Your task to perform on an android device: toggle javascript in the chrome app Image 0: 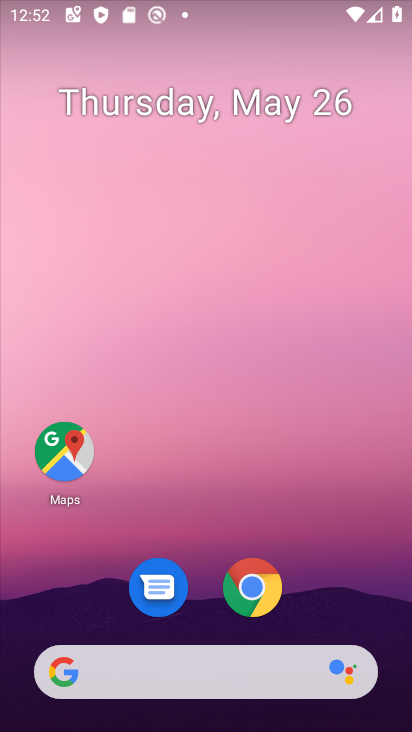
Step 0: drag from (392, 626) to (362, 107)
Your task to perform on an android device: toggle javascript in the chrome app Image 1: 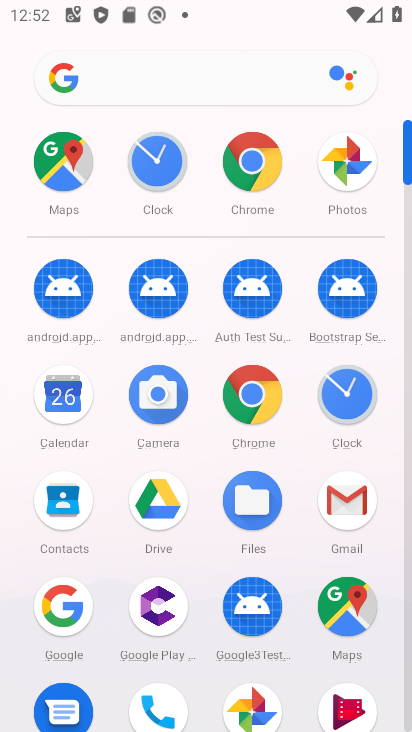
Step 1: click (257, 405)
Your task to perform on an android device: toggle javascript in the chrome app Image 2: 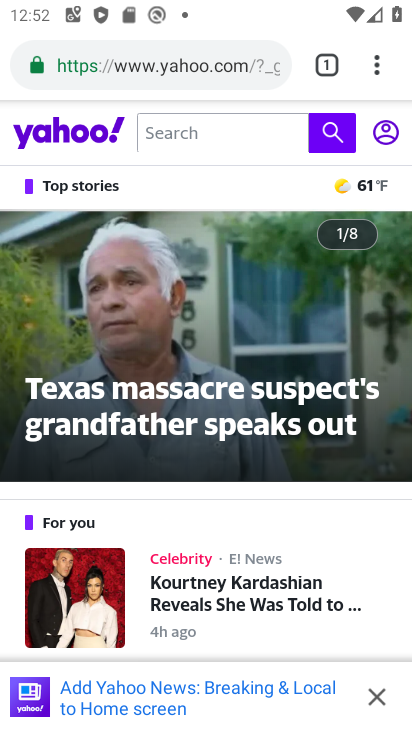
Step 2: click (377, 71)
Your task to perform on an android device: toggle javascript in the chrome app Image 3: 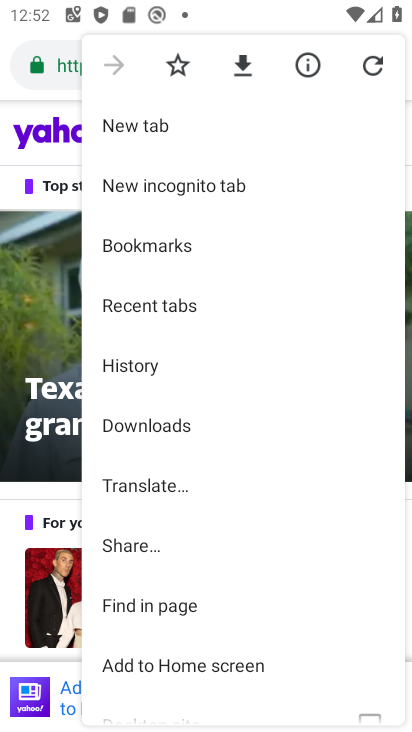
Step 3: drag from (330, 569) to (313, 377)
Your task to perform on an android device: toggle javascript in the chrome app Image 4: 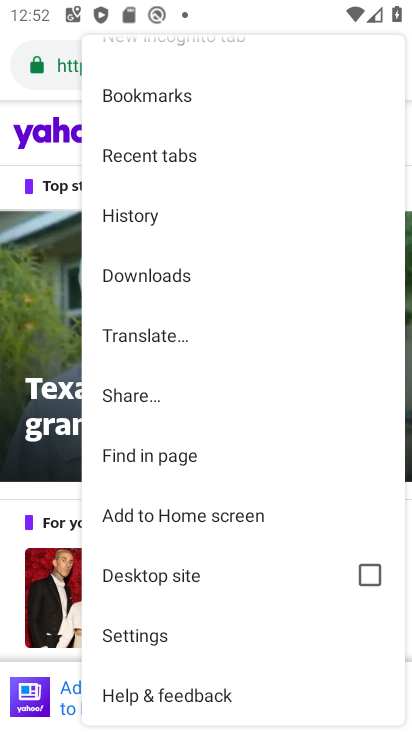
Step 4: drag from (296, 622) to (296, 526)
Your task to perform on an android device: toggle javascript in the chrome app Image 5: 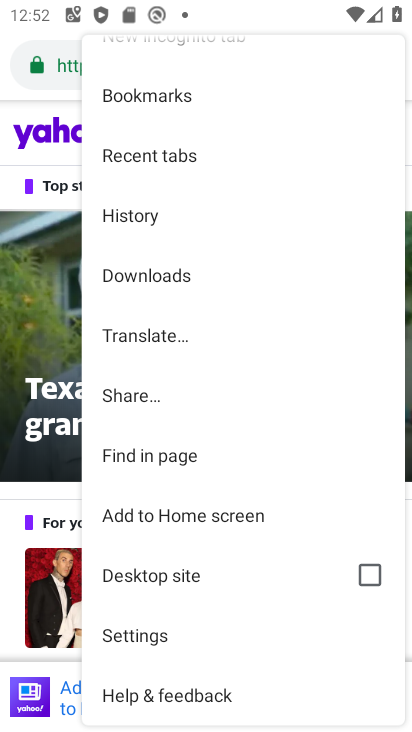
Step 5: click (186, 647)
Your task to perform on an android device: toggle javascript in the chrome app Image 6: 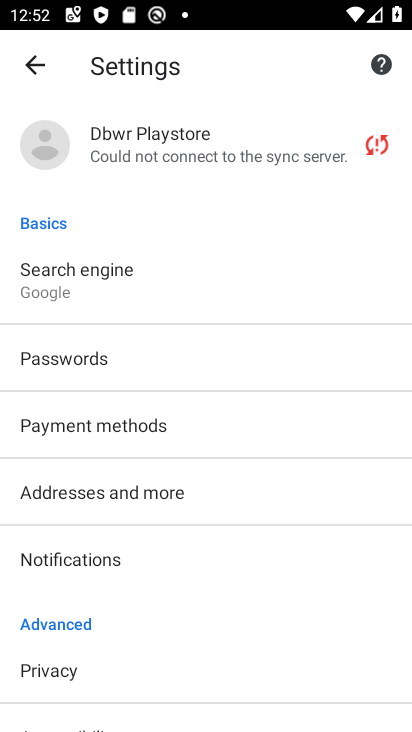
Step 6: drag from (249, 602) to (255, 538)
Your task to perform on an android device: toggle javascript in the chrome app Image 7: 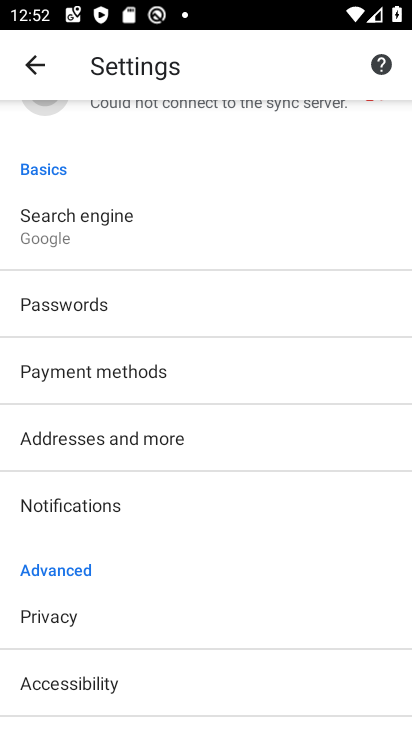
Step 7: drag from (271, 634) to (268, 566)
Your task to perform on an android device: toggle javascript in the chrome app Image 8: 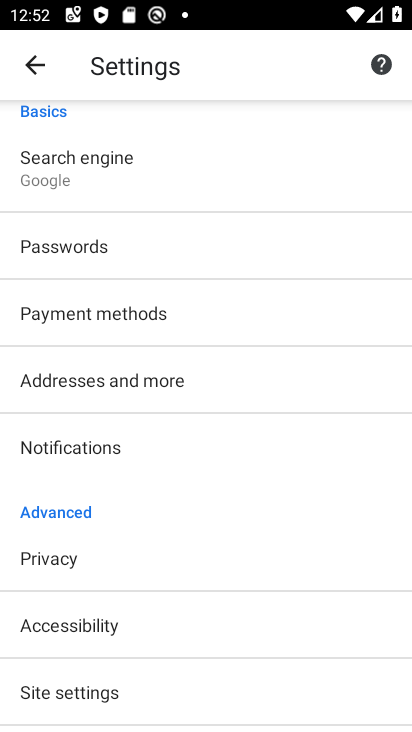
Step 8: drag from (277, 641) to (275, 574)
Your task to perform on an android device: toggle javascript in the chrome app Image 9: 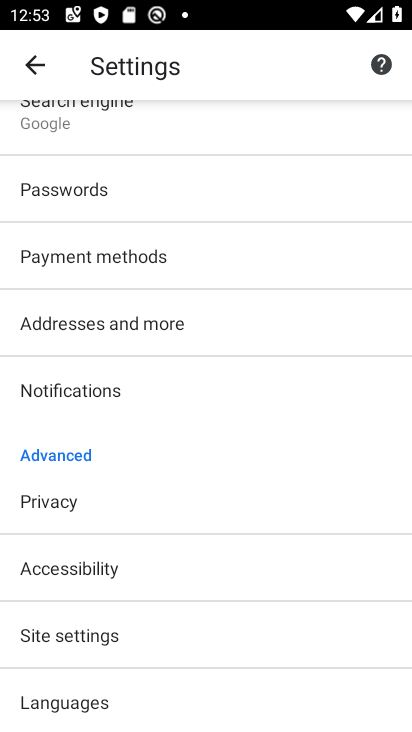
Step 9: drag from (271, 630) to (265, 565)
Your task to perform on an android device: toggle javascript in the chrome app Image 10: 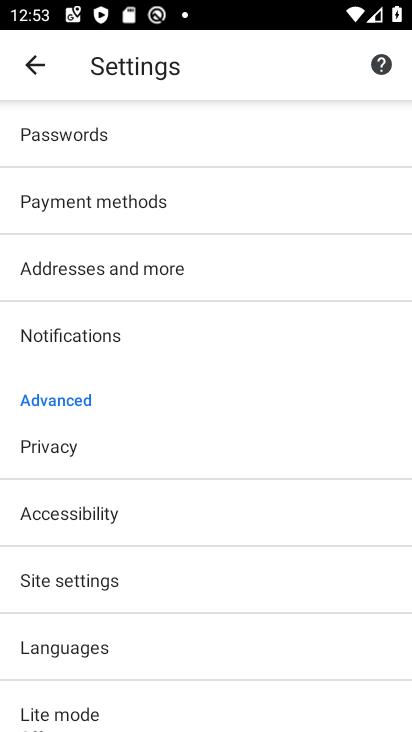
Step 10: drag from (257, 624) to (258, 572)
Your task to perform on an android device: toggle javascript in the chrome app Image 11: 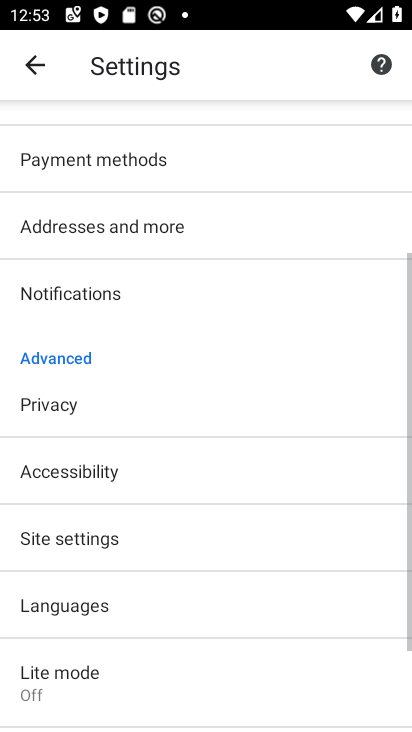
Step 11: drag from (263, 618) to (264, 570)
Your task to perform on an android device: toggle javascript in the chrome app Image 12: 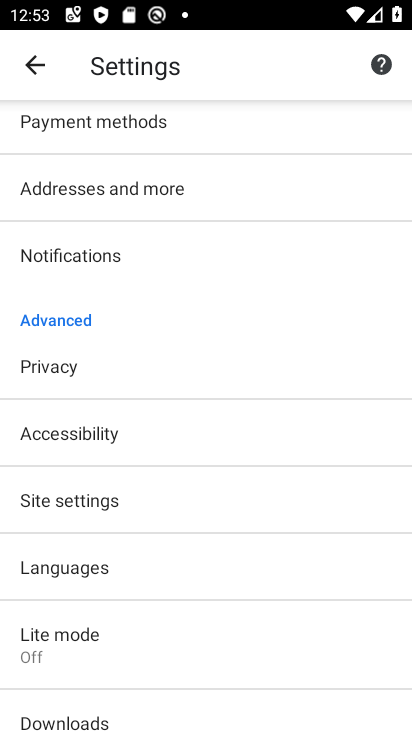
Step 12: drag from (260, 572) to (263, 512)
Your task to perform on an android device: toggle javascript in the chrome app Image 13: 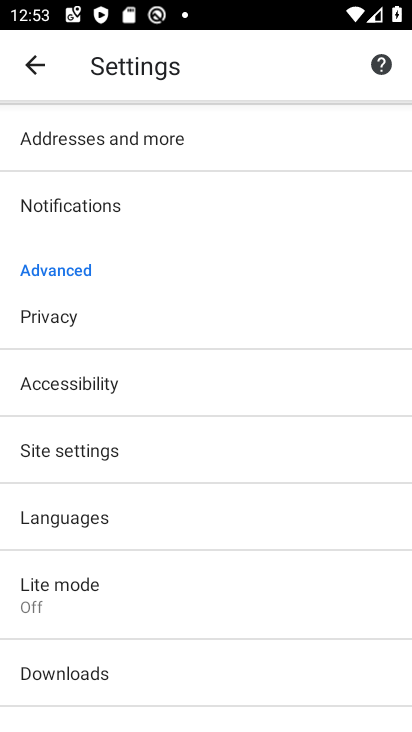
Step 13: click (257, 458)
Your task to perform on an android device: toggle javascript in the chrome app Image 14: 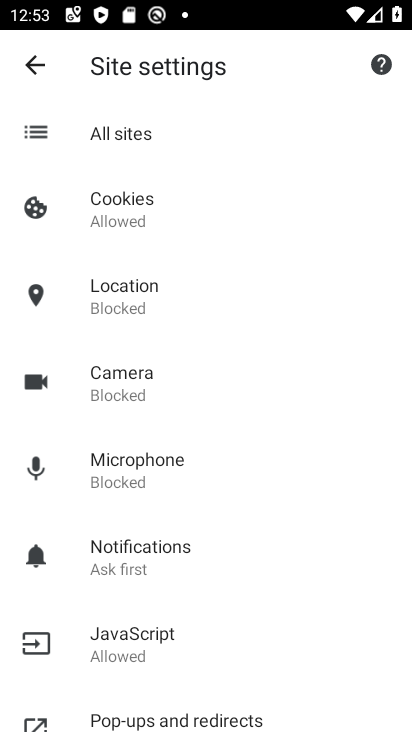
Step 14: drag from (276, 553) to (277, 494)
Your task to perform on an android device: toggle javascript in the chrome app Image 15: 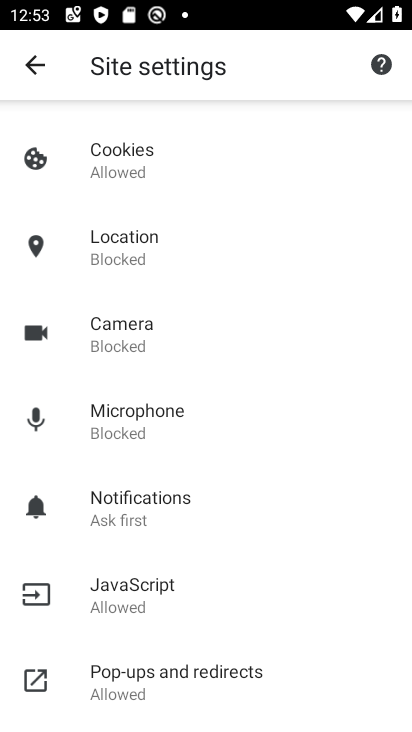
Step 15: drag from (277, 551) to (282, 496)
Your task to perform on an android device: toggle javascript in the chrome app Image 16: 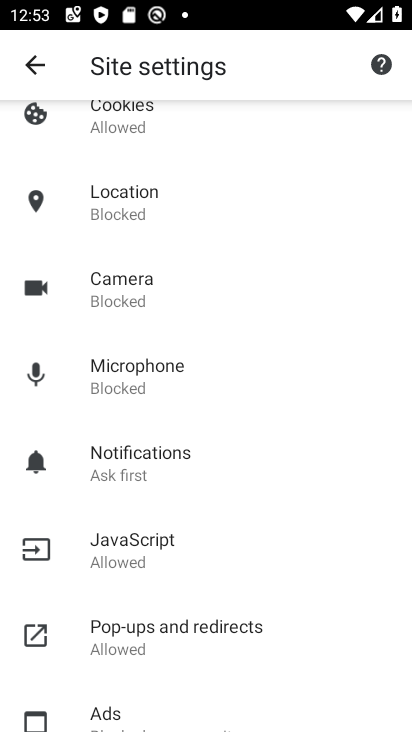
Step 16: click (280, 561)
Your task to perform on an android device: toggle javascript in the chrome app Image 17: 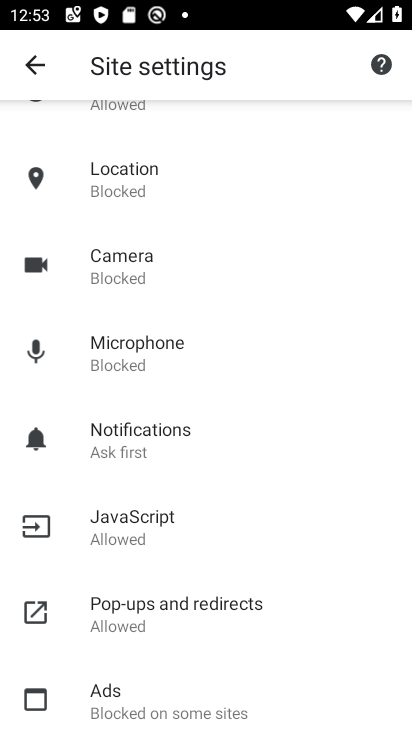
Step 17: drag from (283, 561) to (284, 494)
Your task to perform on an android device: toggle javascript in the chrome app Image 18: 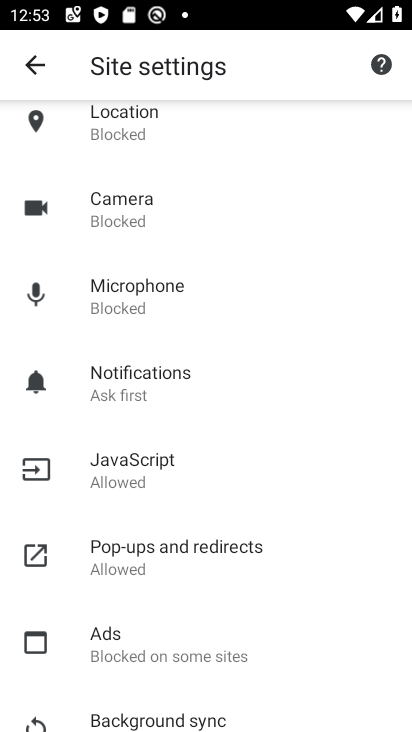
Step 18: click (195, 486)
Your task to perform on an android device: toggle javascript in the chrome app Image 19: 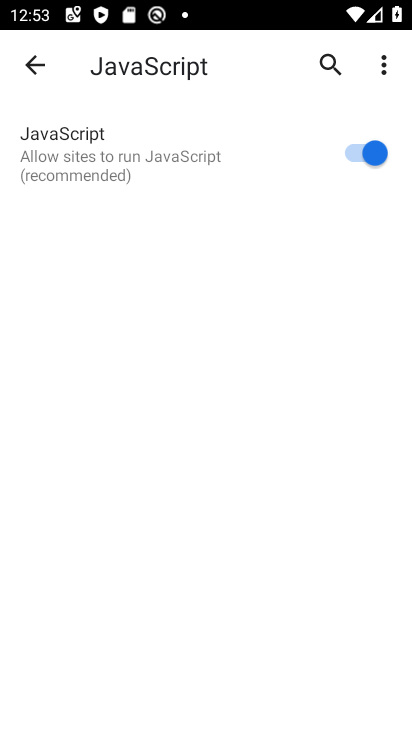
Step 19: click (343, 154)
Your task to perform on an android device: toggle javascript in the chrome app Image 20: 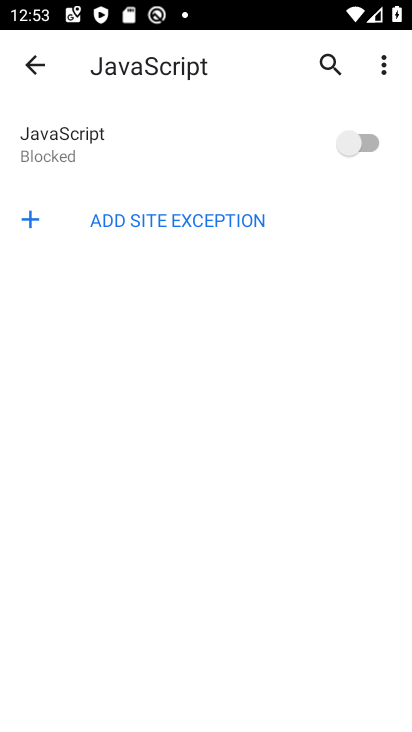
Step 20: task complete